Your task to perform on an android device: Open Google Maps Image 0: 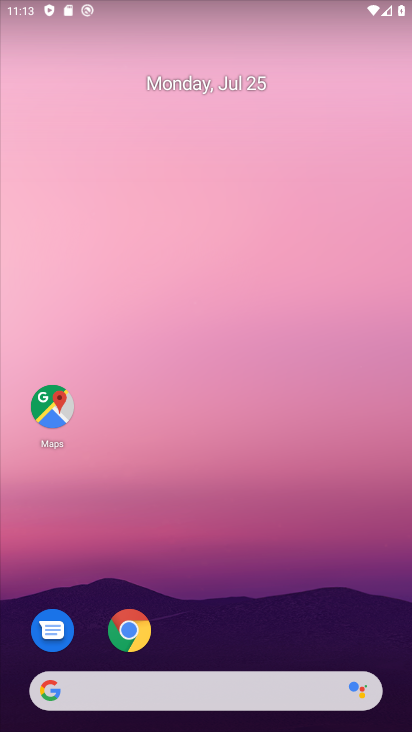
Step 0: click (248, 150)
Your task to perform on an android device: Open Google Maps Image 1: 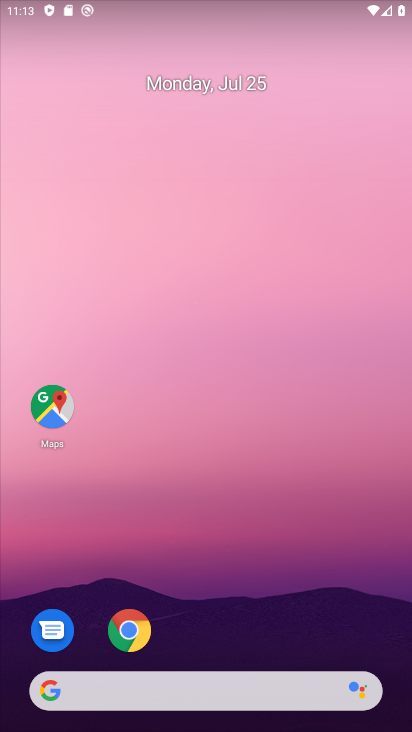
Step 1: drag from (234, 547) to (297, 61)
Your task to perform on an android device: Open Google Maps Image 2: 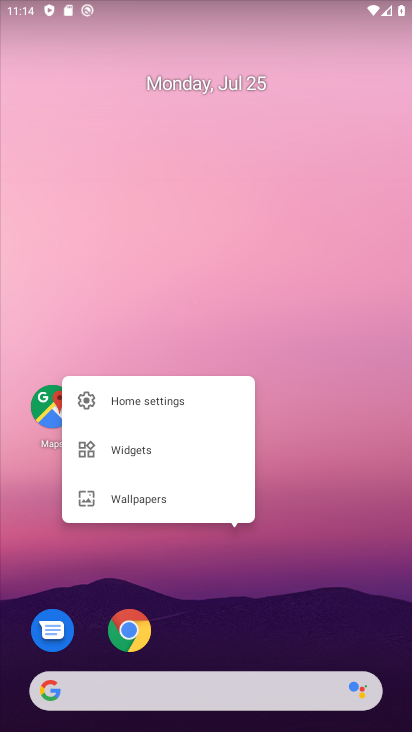
Step 2: click (46, 166)
Your task to perform on an android device: Open Google Maps Image 3: 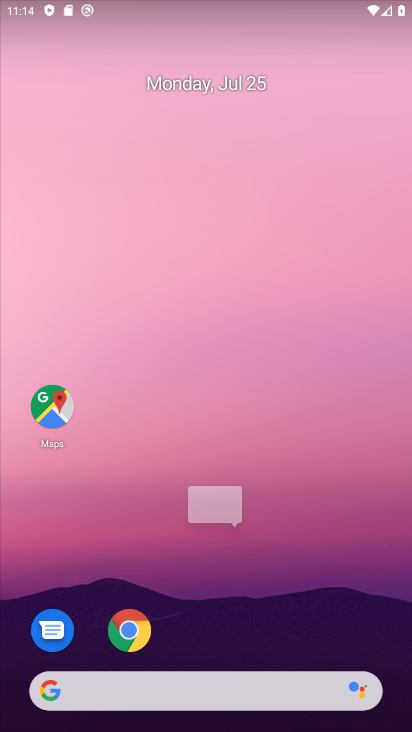
Step 3: drag from (208, 145) to (259, 69)
Your task to perform on an android device: Open Google Maps Image 4: 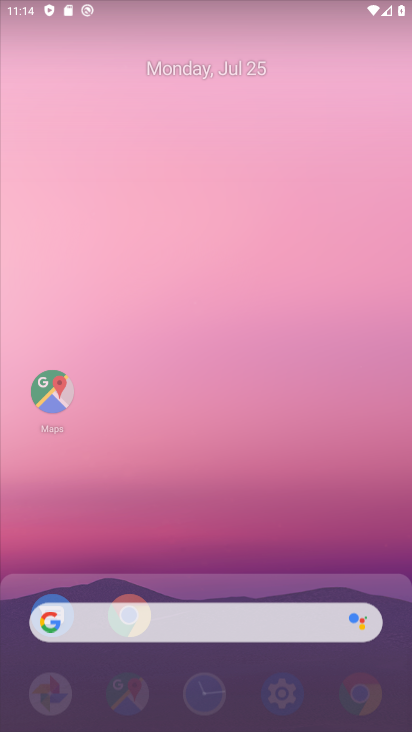
Step 4: drag from (280, 567) to (272, 76)
Your task to perform on an android device: Open Google Maps Image 5: 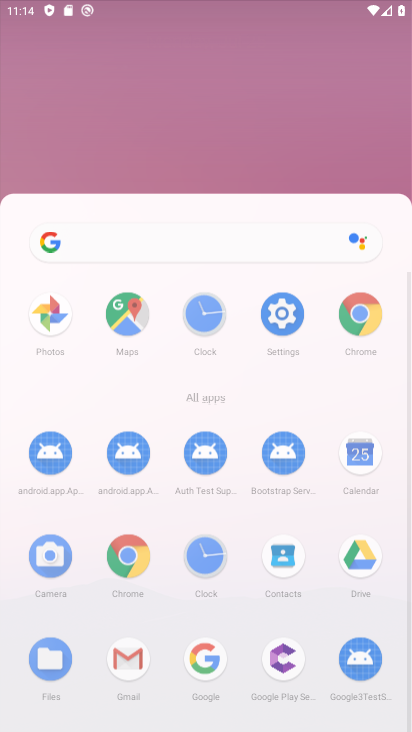
Step 5: drag from (260, 621) to (235, 169)
Your task to perform on an android device: Open Google Maps Image 6: 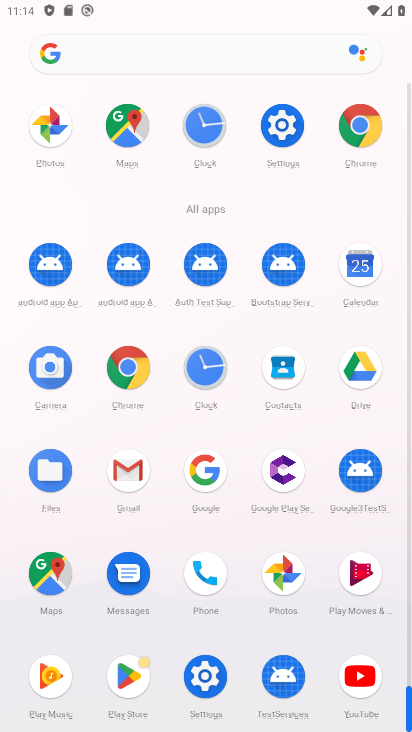
Step 6: click (58, 580)
Your task to perform on an android device: Open Google Maps Image 7: 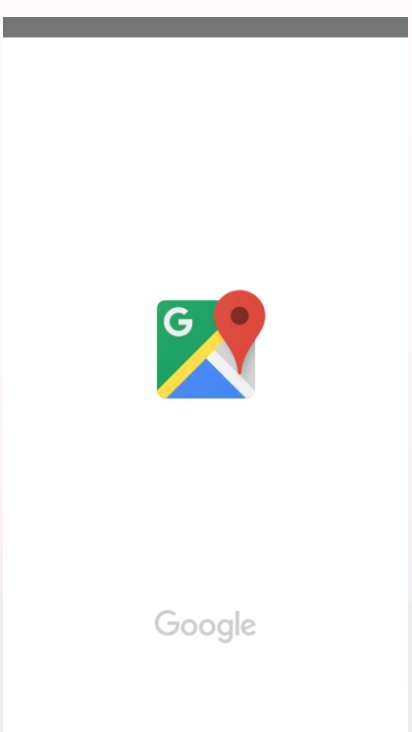
Step 7: click (57, 579)
Your task to perform on an android device: Open Google Maps Image 8: 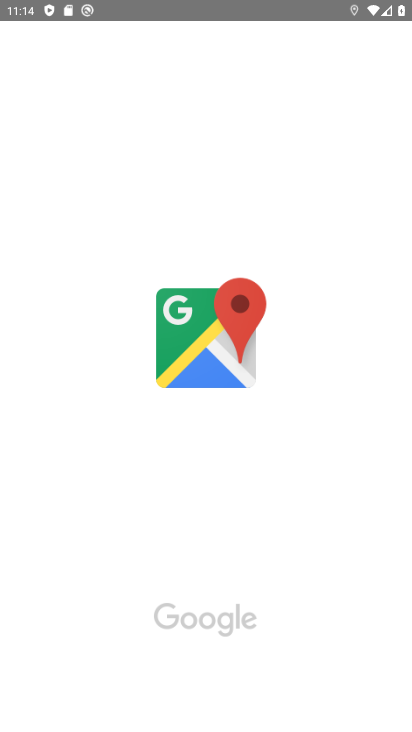
Step 8: click (57, 579)
Your task to perform on an android device: Open Google Maps Image 9: 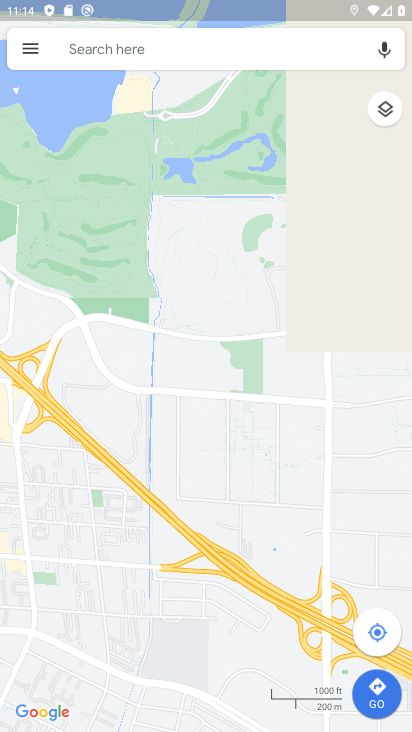
Step 9: task complete